Your task to perform on an android device: Show me recent news Image 0: 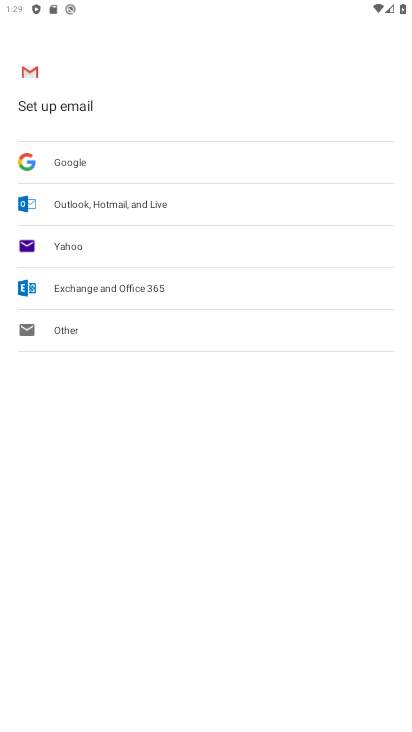
Step 0: press home button
Your task to perform on an android device: Show me recent news Image 1: 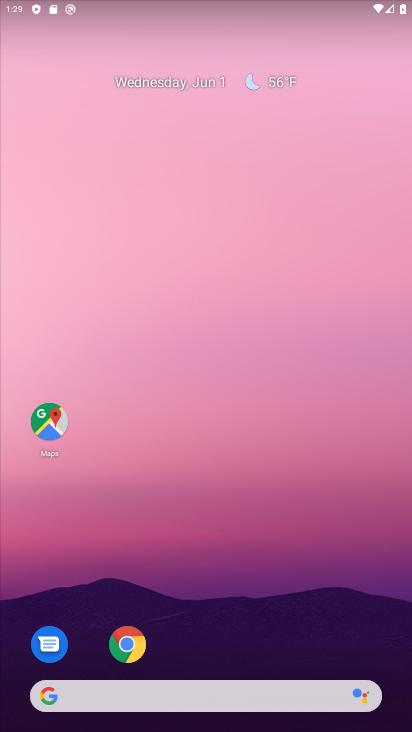
Step 1: drag from (184, 438) to (183, 224)
Your task to perform on an android device: Show me recent news Image 2: 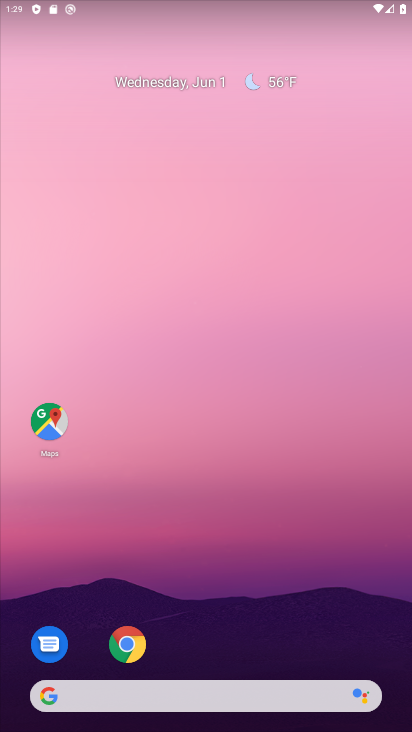
Step 2: drag from (230, 665) to (235, 216)
Your task to perform on an android device: Show me recent news Image 3: 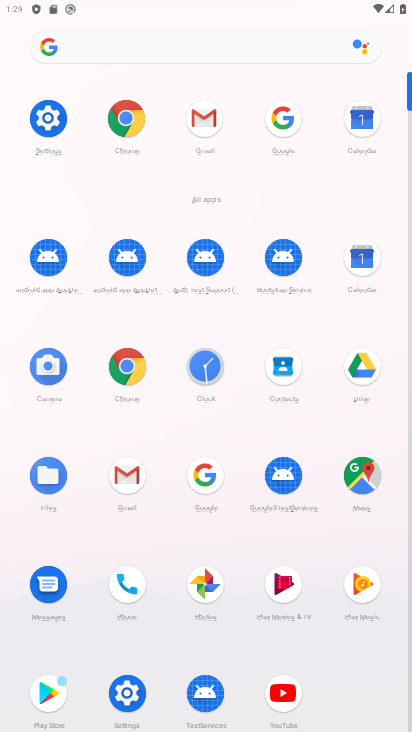
Step 3: click (285, 125)
Your task to perform on an android device: Show me recent news Image 4: 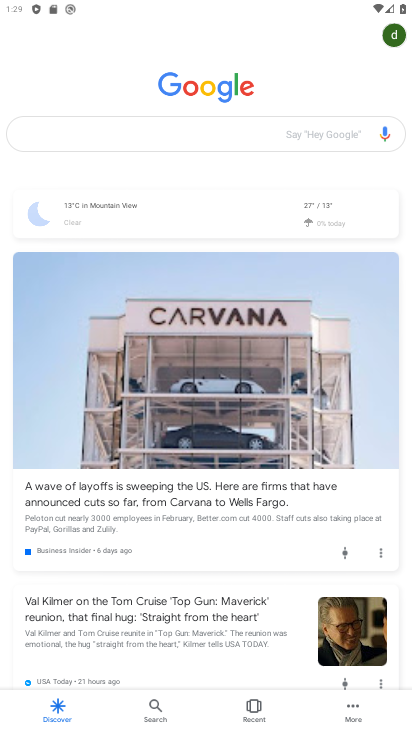
Step 4: click (147, 128)
Your task to perform on an android device: Show me recent news Image 5: 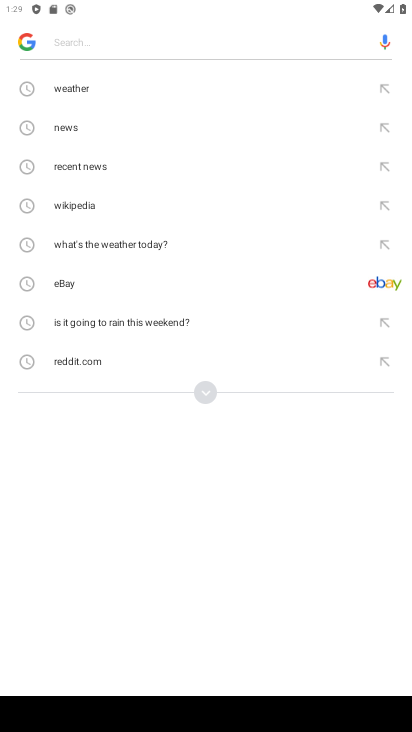
Step 5: click (79, 166)
Your task to perform on an android device: Show me recent news Image 6: 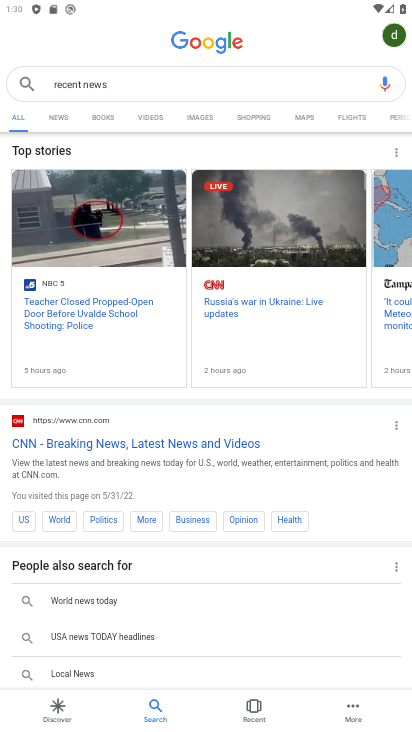
Step 6: task complete